Your task to perform on an android device: What is the news today? Image 0: 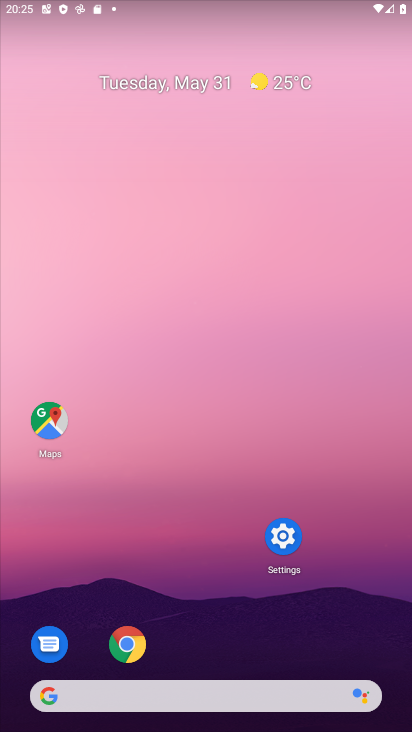
Step 0: press home button
Your task to perform on an android device: What is the news today? Image 1: 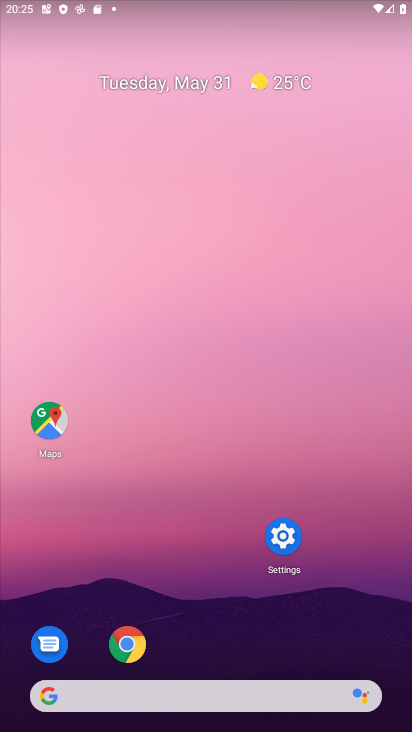
Step 1: drag from (222, 726) to (114, 7)
Your task to perform on an android device: What is the news today? Image 2: 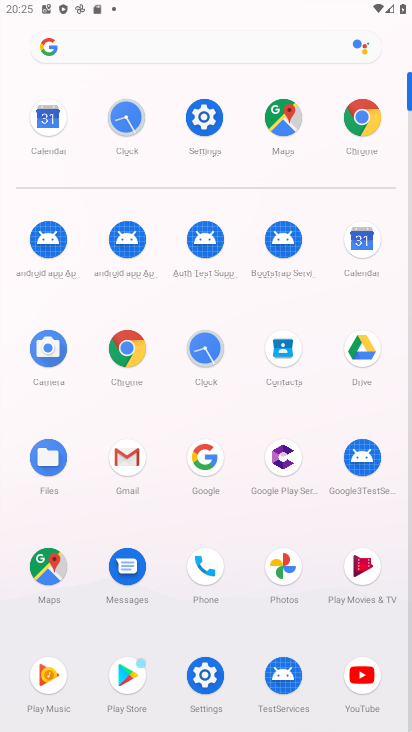
Step 2: click (104, 44)
Your task to perform on an android device: What is the news today? Image 3: 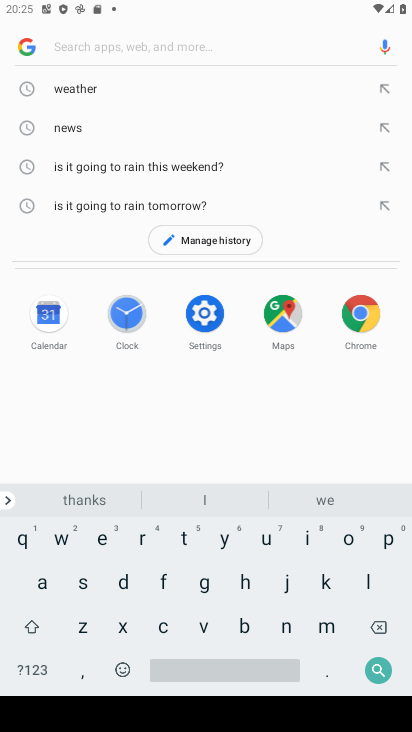
Step 3: click (283, 619)
Your task to perform on an android device: What is the news today? Image 4: 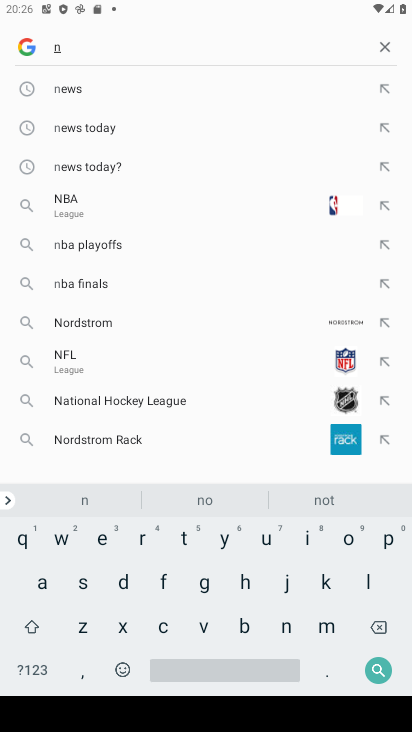
Step 4: click (86, 162)
Your task to perform on an android device: What is the news today? Image 5: 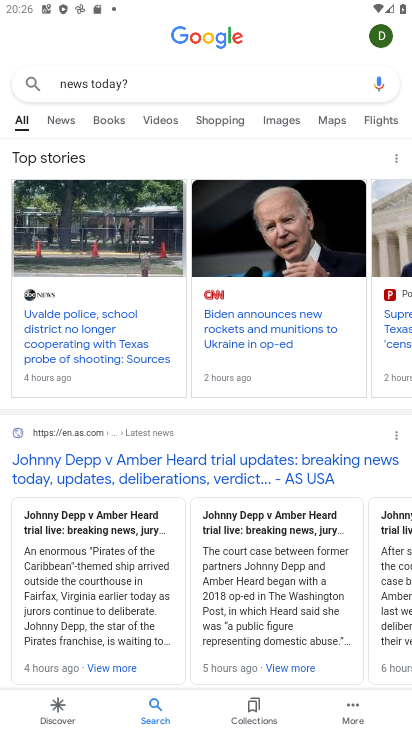
Step 5: task complete